Your task to perform on an android device: What's on my calendar tomorrow? Image 0: 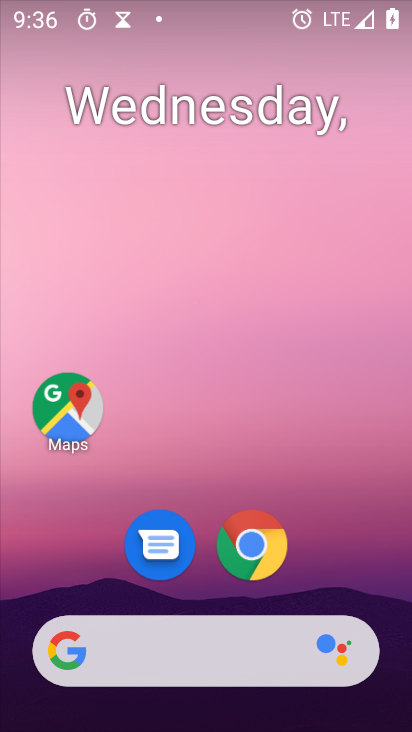
Step 0: press home button
Your task to perform on an android device: What's on my calendar tomorrow? Image 1: 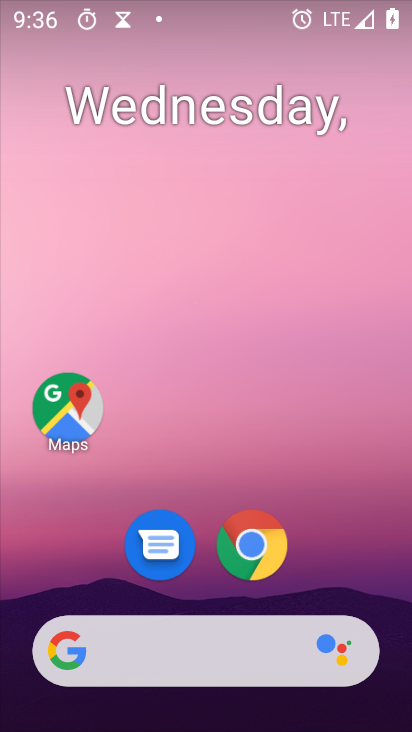
Step 1: click (77, 662)
Your task to perform on an android device: What's on my calendar tomorrow? Image 2: 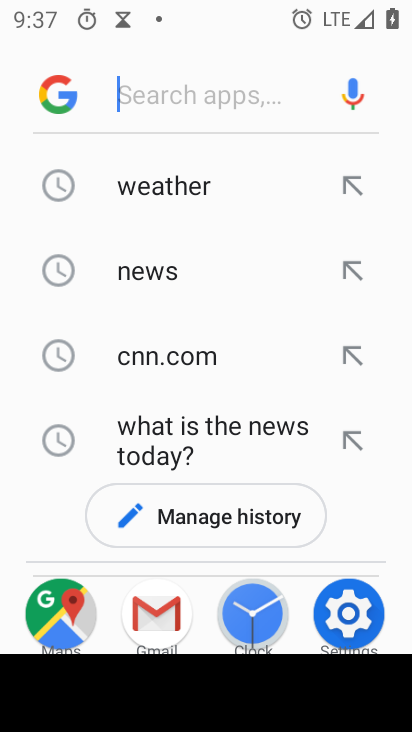
Step 2: press home button
Your task to perform on an android device: What's on my calendar tomorrow? Image 3: 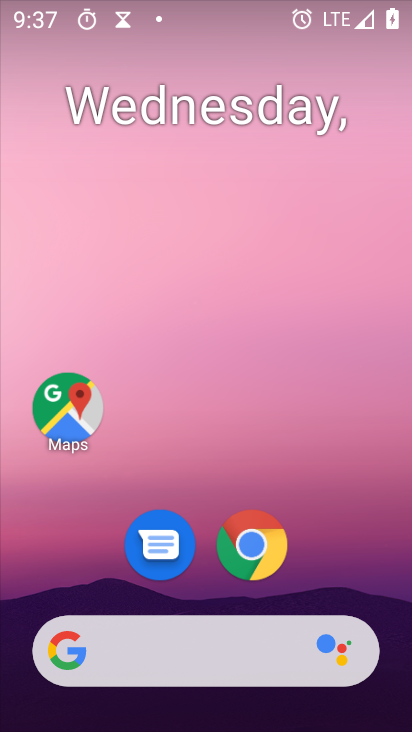
Step 3: drag from (137, 646) to (295, 112)
Your task to perform on an android device: What's on my calendar tomorrow? Image 4: 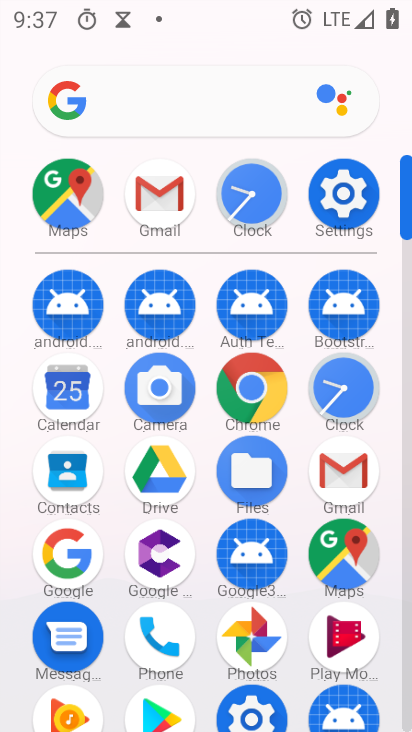
Step 4: click (73, 397)
Your task to perform on an android device: What's on my calendar tomorrow? Image 5: 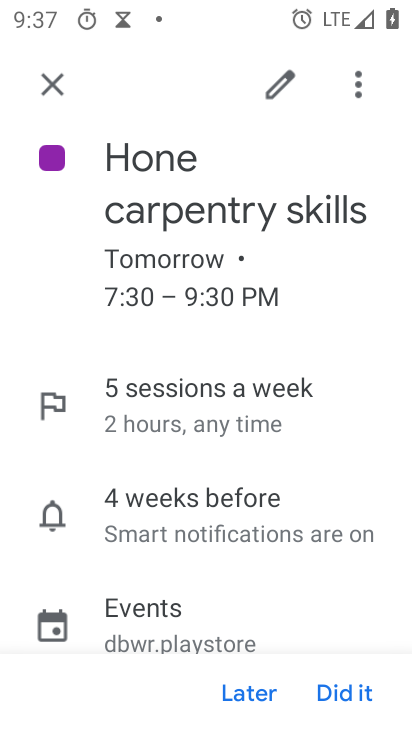
Step 5: task complete